Your task to perform on an android device: open app "DuckDuckGo Privacy Browser" (install if not already installed) Image 0: 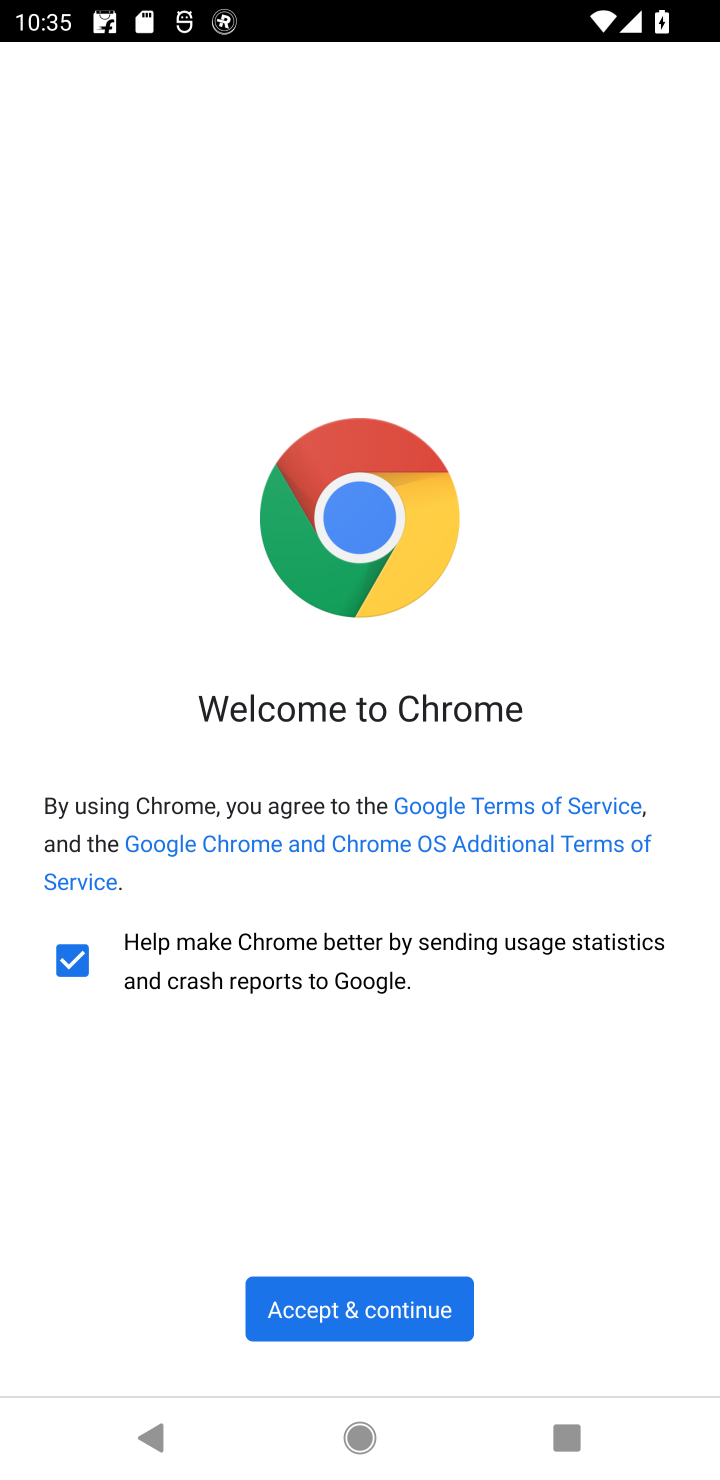
Step 0: press home button
Your task to perform on an android device: open app "DuckDuckGo Privacy Browser" (install if not already installed) Image 1: 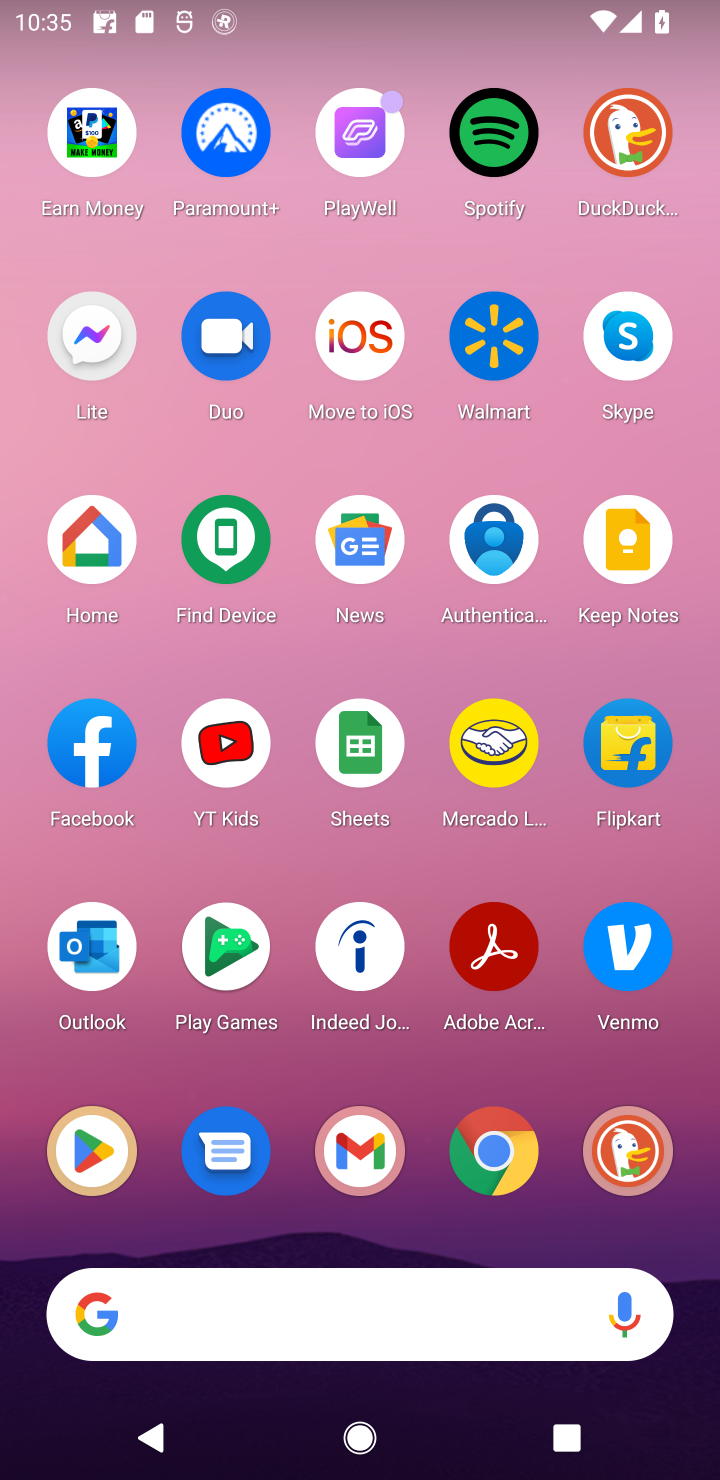
Step 1: click (108, 1129)
Your task to perform on an android device: open app "DuckDuckGo Privacy Browser" (install if not already installed) Image 2: 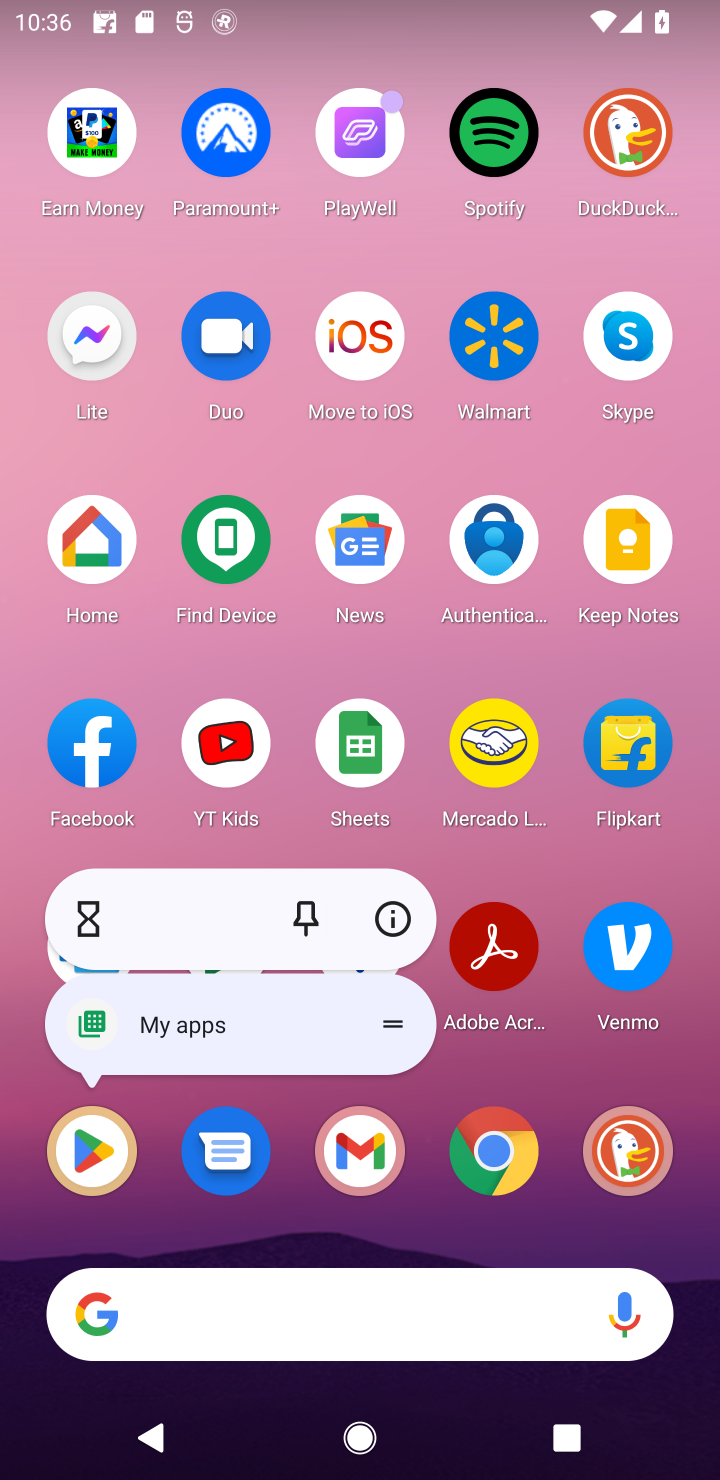
Step 2: click (108, 1129)
Your task to perform on an android device: open app "DuckDuckGo Privacy Browser" (install if not already installed) Image 3: 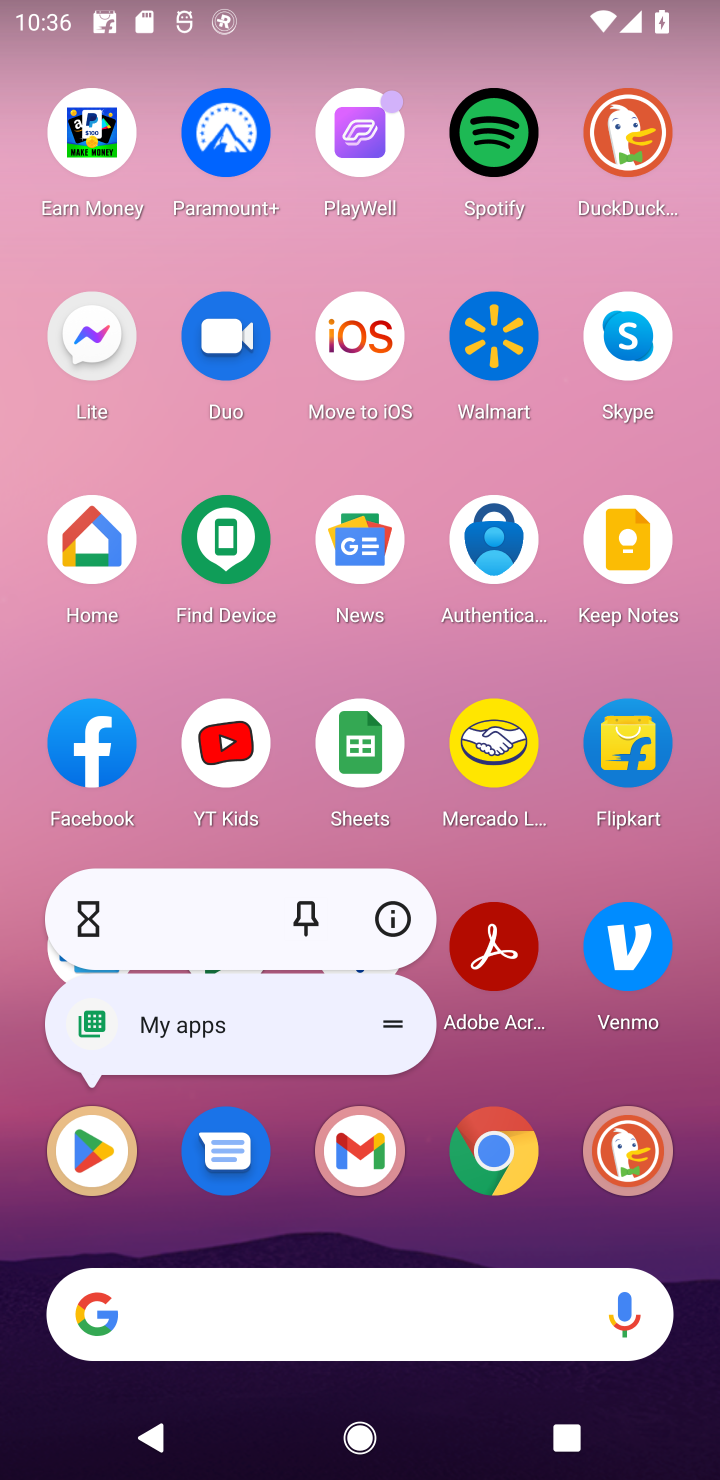
Step 3: click (98, 1139)
Your task to perform on an android device: open app "DuckDuckGo Privacy Browser" (install if not already installed) Image 4: 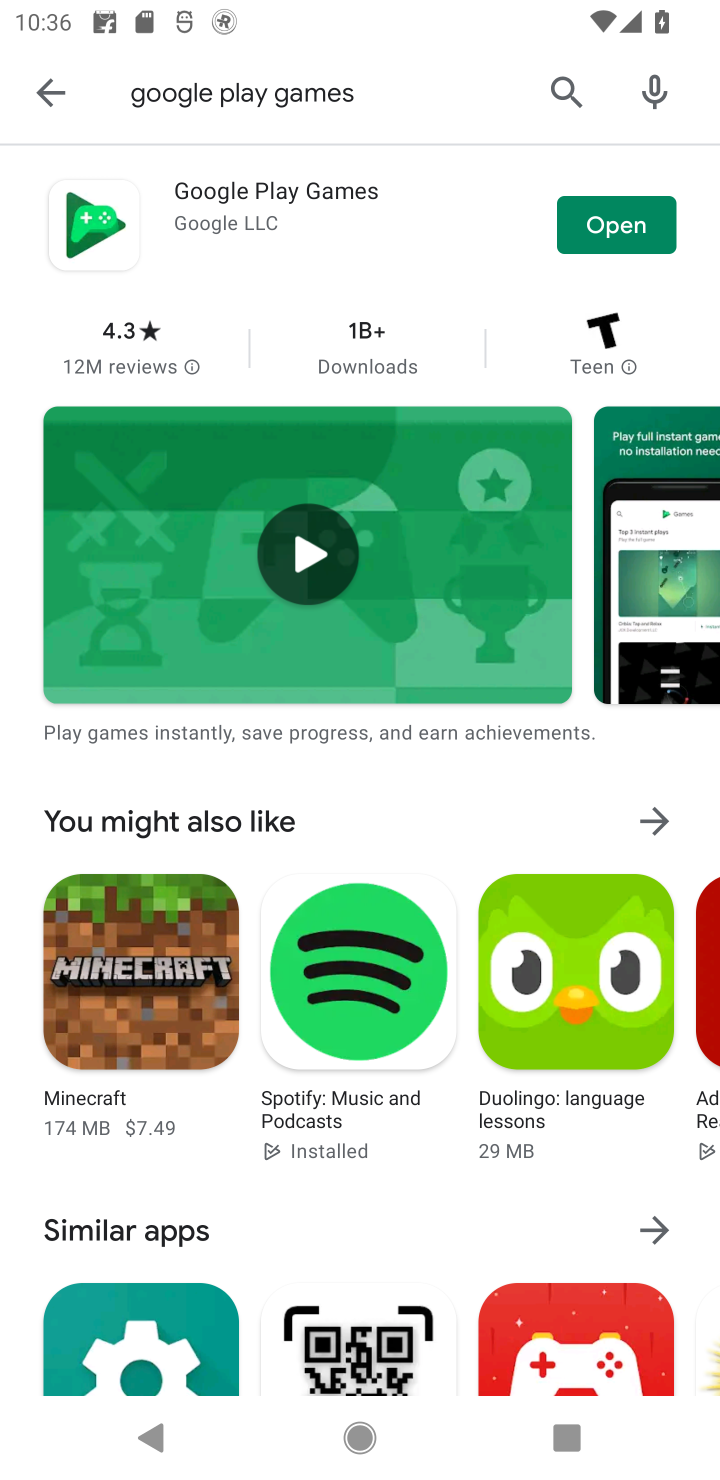
Step 4: click (547, 100)
Your task to perform on an android device: open app "DuckDuckGo Privacy Browser" (install if not already installed) Image 5: 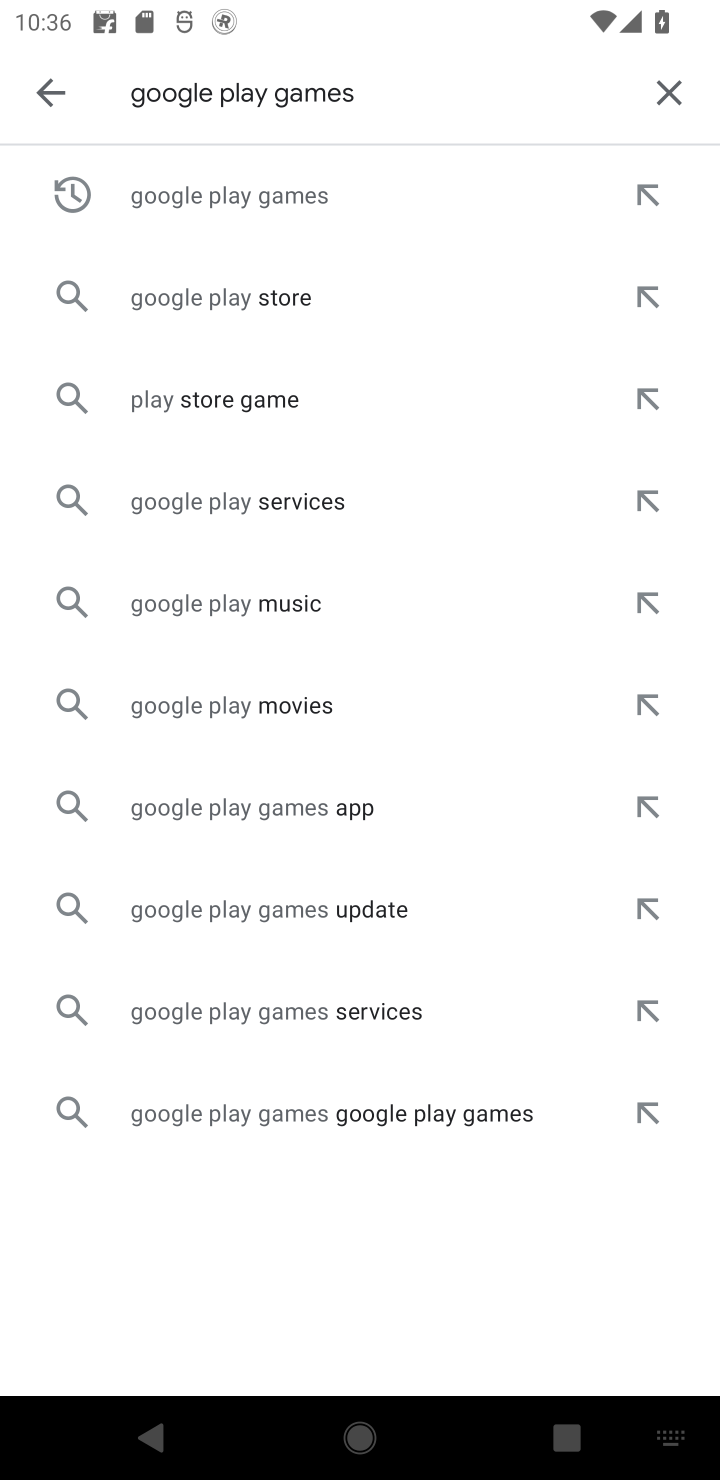
Step 5: click (562, 96)
Your task to perform on an android device: open app "DuckDuckGo Privacy Browser" (install if not already installed) Image 6: 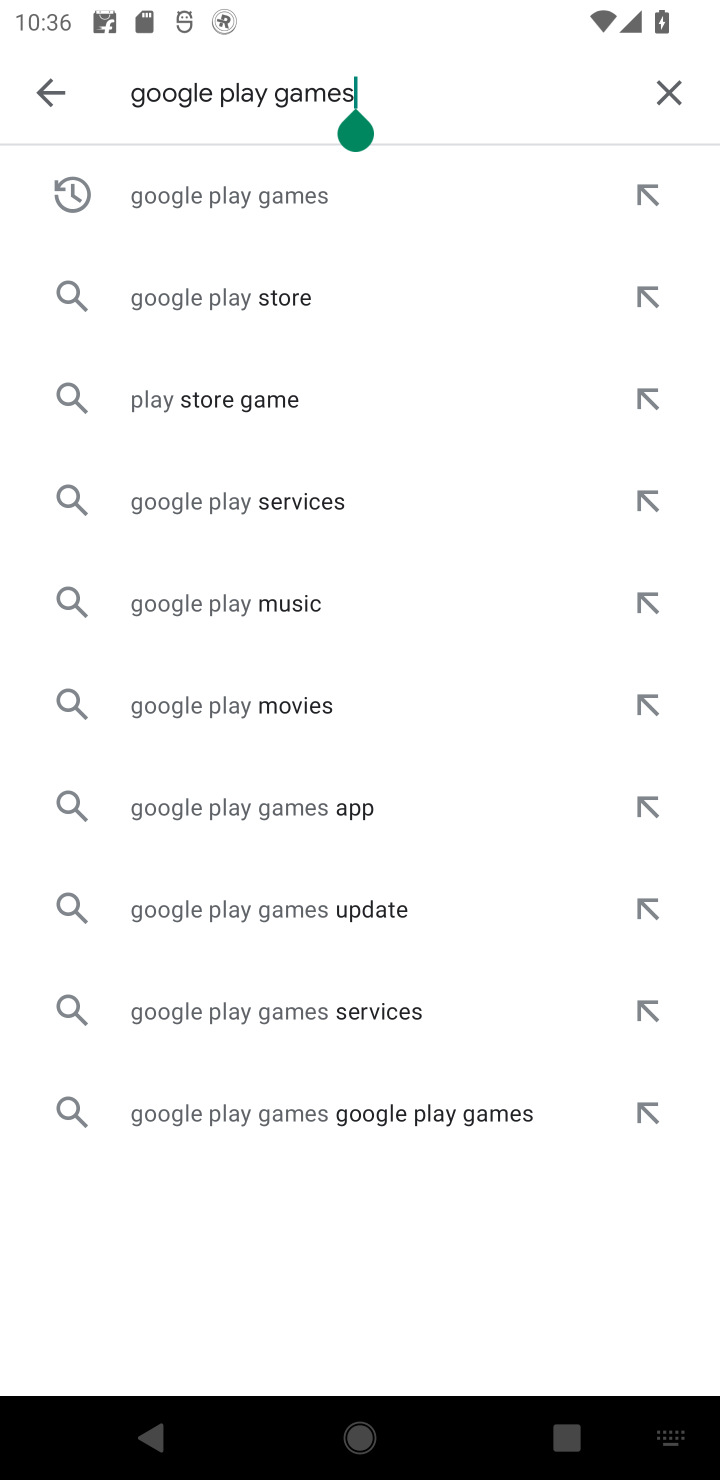
Step 6: click (685, 94)
Your task to perform on an android device: open app "DuckDuckGo Privacy Browser" (install if not already installed) Image 7: 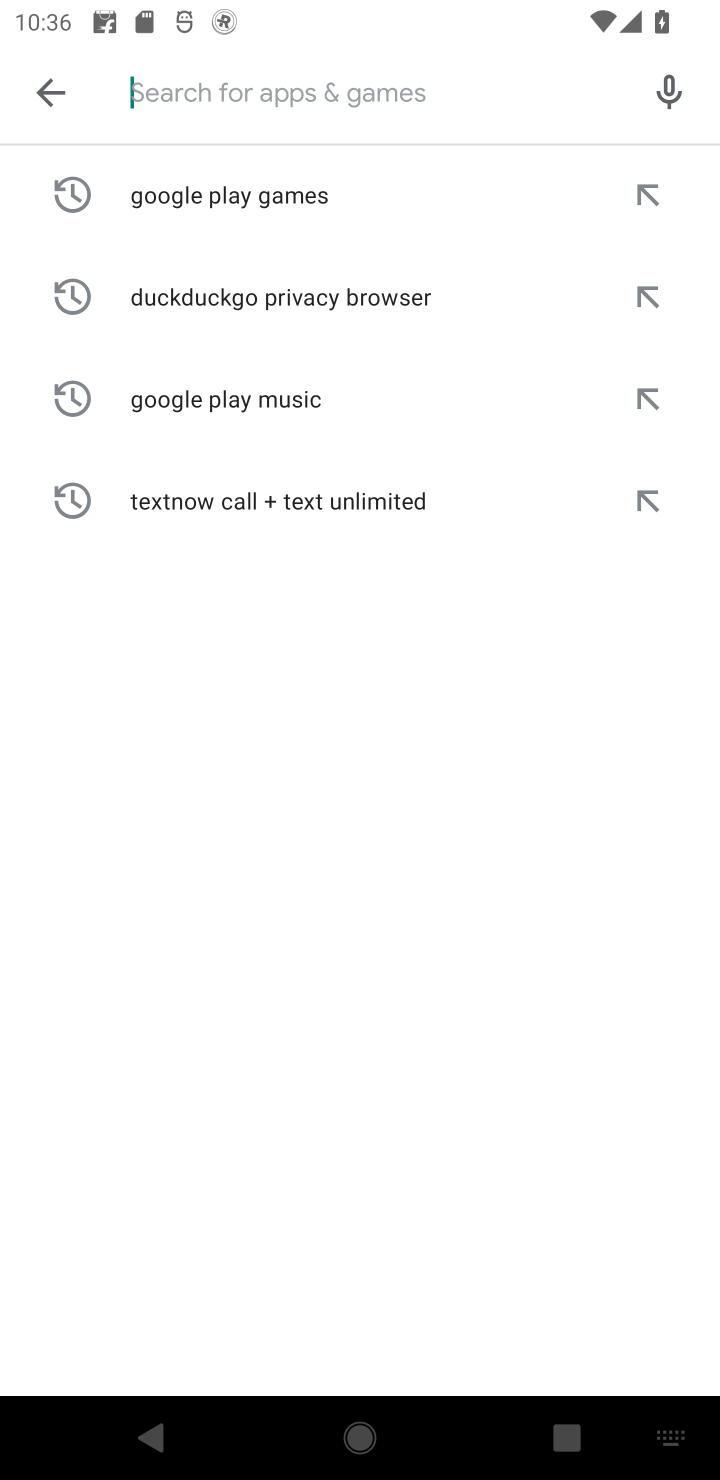
Step 7: type "DuckDuckGo Privacy Browser"
Your task to perform on an android device: open app "DuckDuckGo Privacy Browser" (install if not already installed) Image 8: 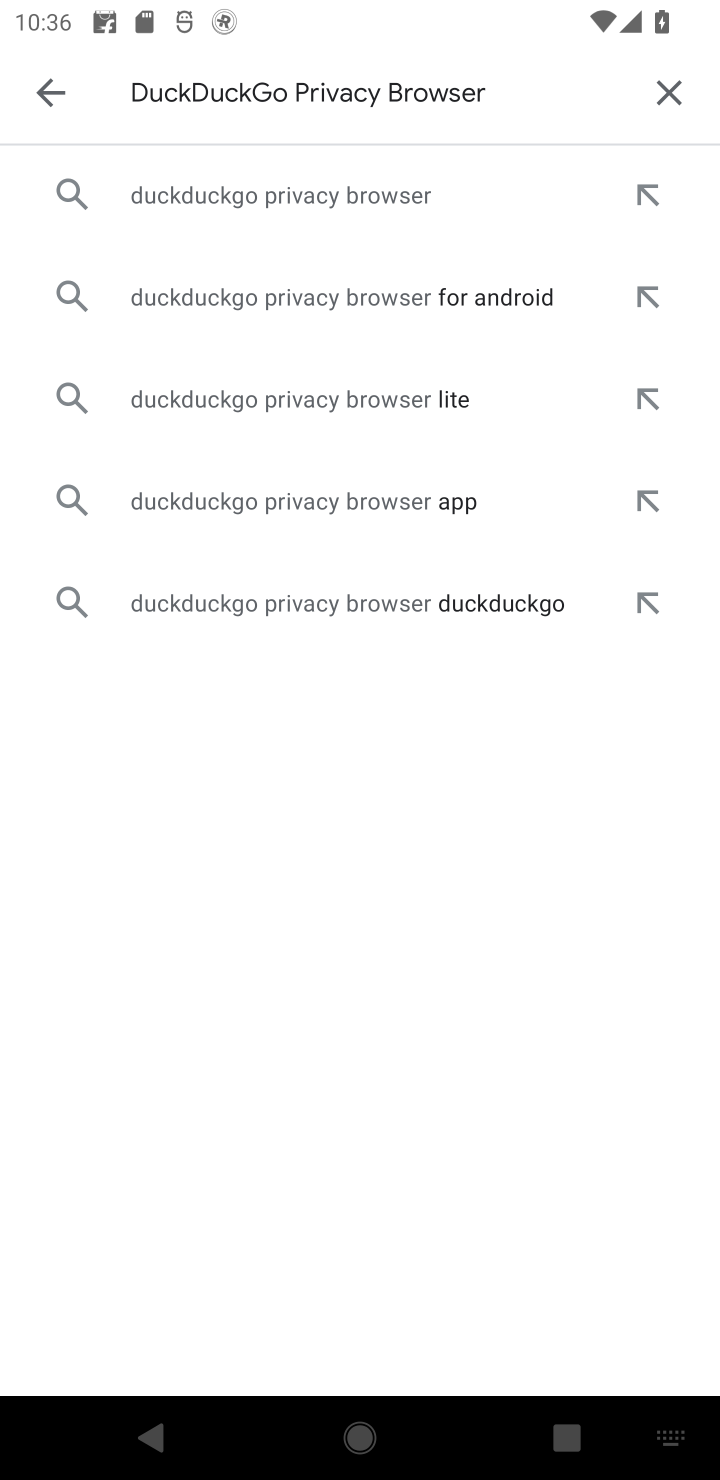
Step 8: click (294, 200)
Your task to perform on an android device: open app "DuckDuckGo Privacy Browser" (install if not already installed) Image 9: 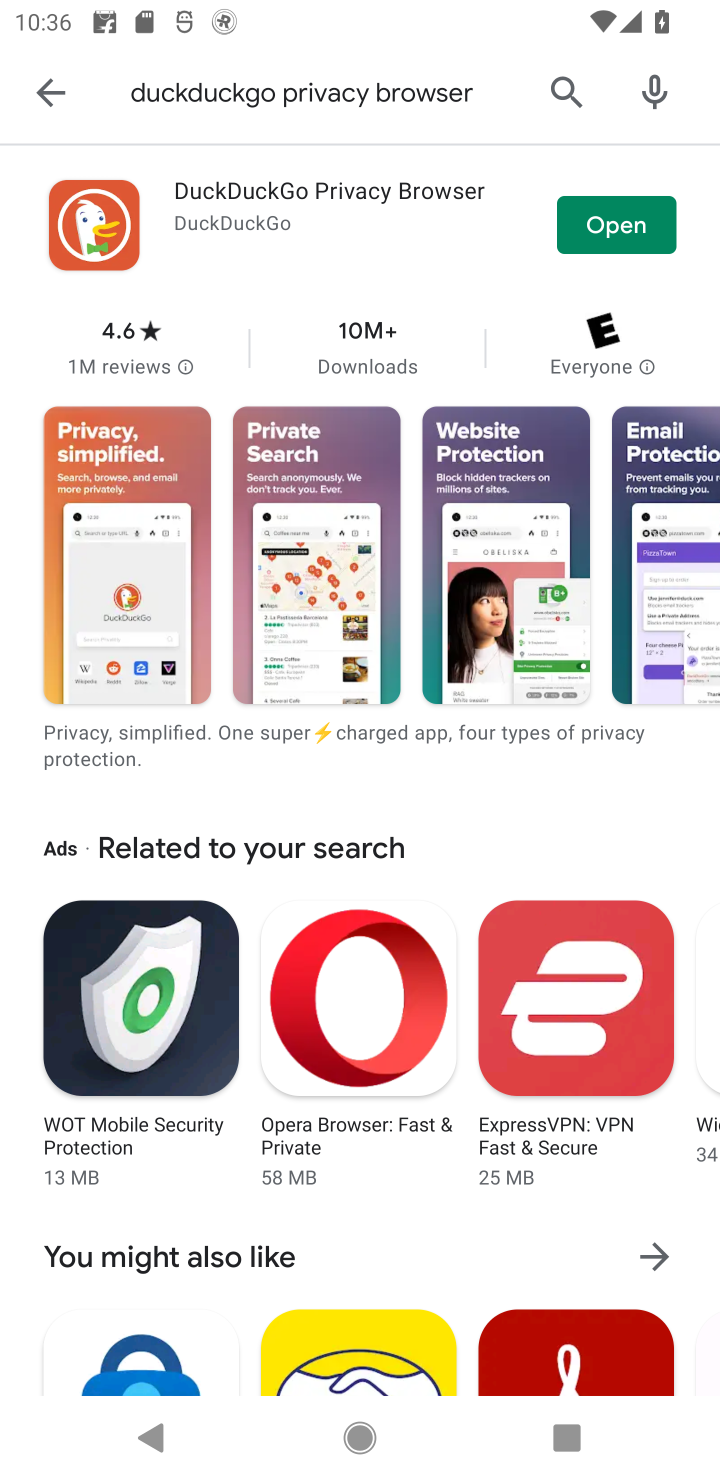
Step 9: click (628, 241)
Your task to perform on an android device: open app "DuckDuckGo Privacy Browser" (install if not already installed) Image 10: 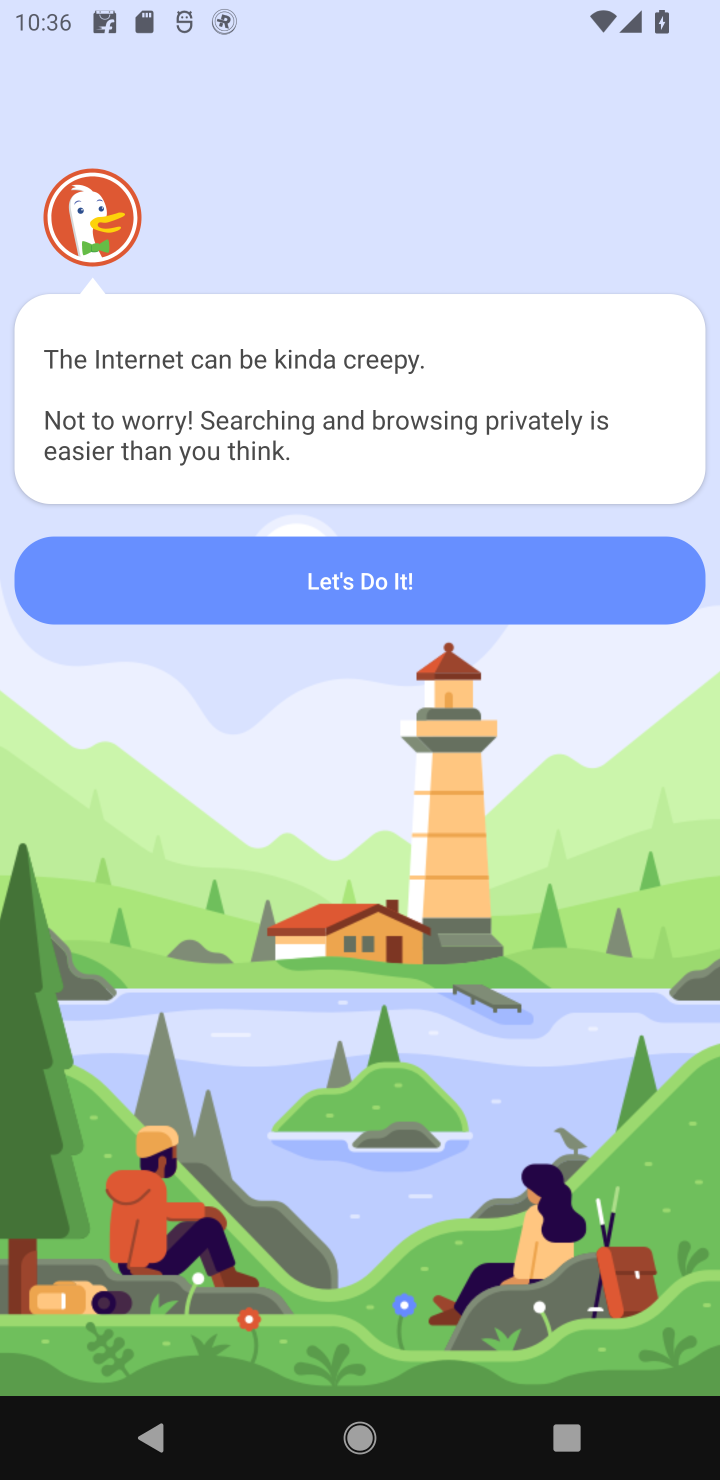
Step 10: task complete